Your task to perform on an android device: turn off picture-in-picture Image 0: 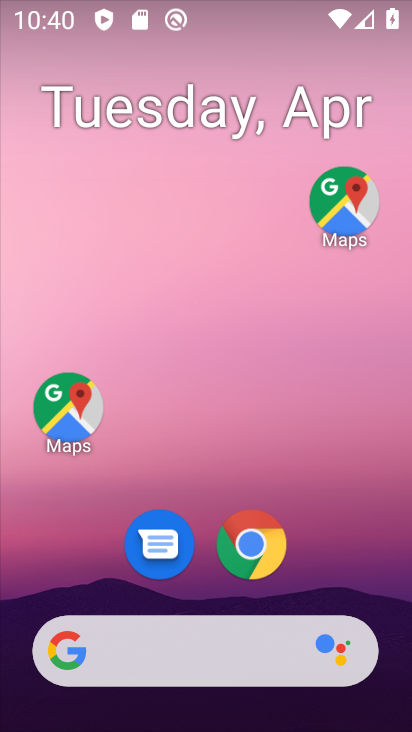
Step 0: drag from (312, 592) to (287, 0)
Your task to perform on an android device: turn off picture-in-picture Image 1: 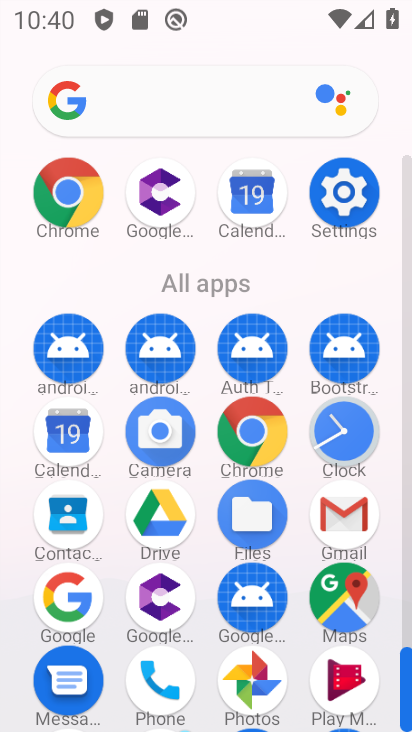
Step 1: click (343, 219)
Your task to perform on an android device: turn off picture-in-picture Image 2: 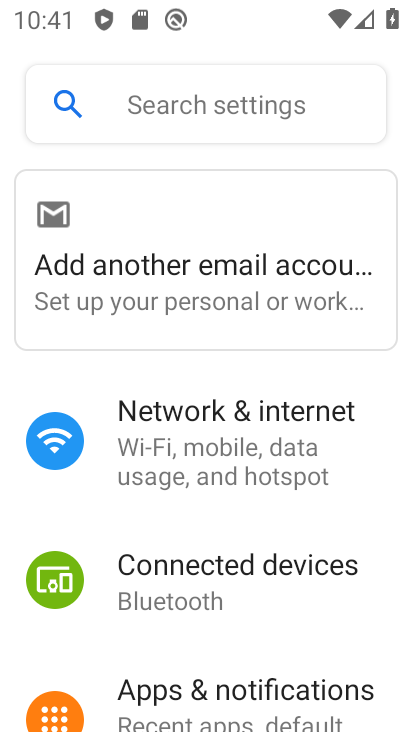
Step 2: drag from (271, 625) to (314, 261)
Your task to perform on an android device: turn off picture-in-picture Image 3: 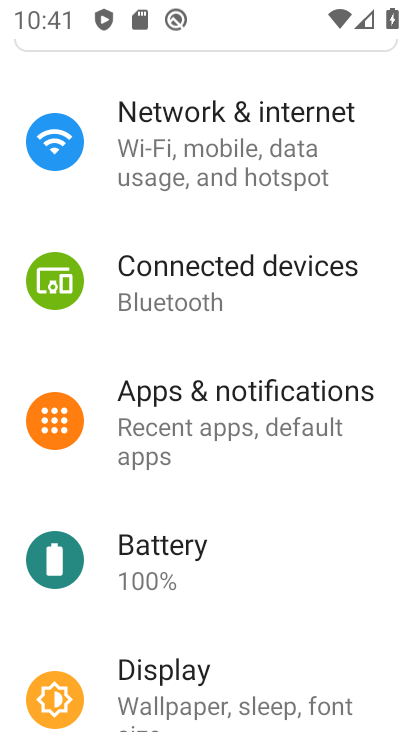
Step 3: drag from (279, 651) to (315, 319)
Your task to perform on an android device: turn off picture-in-picture Image 4: 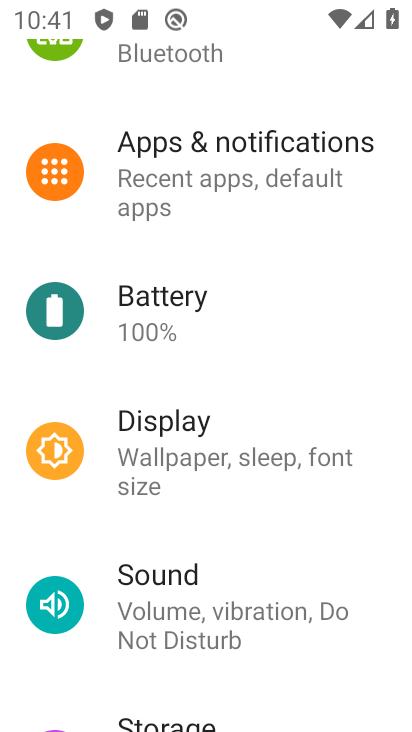
Step 4: drag from (290, 686) to (264, 730)
Your task to perform on an android device: turn off picture-in-picture Image 5: 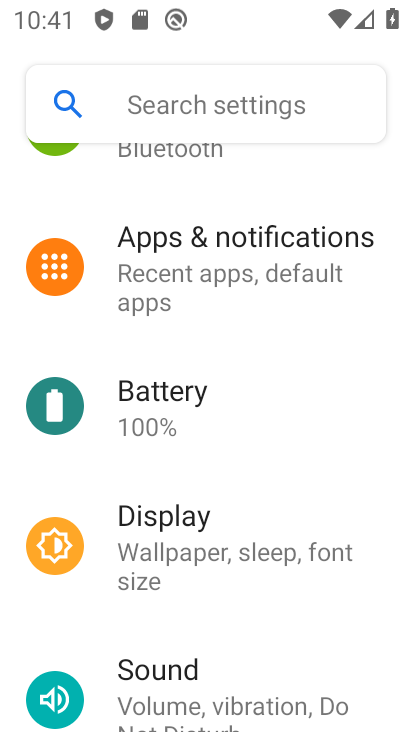
Step 5: drag from (244, 343) to (225, 696)
Your task to perform on an android device: turn off picture-in-picture Image 6: 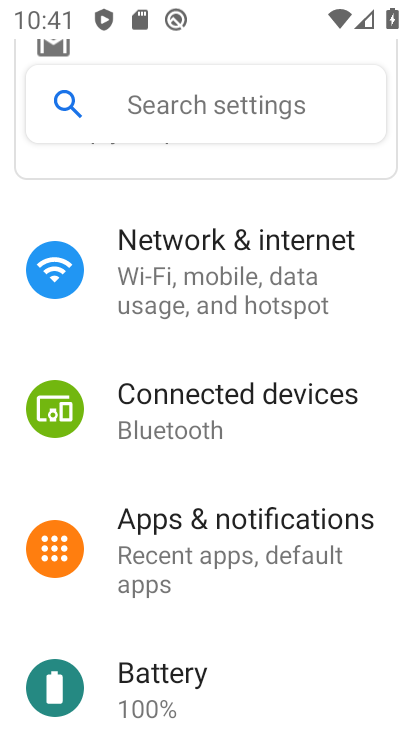
Step 6: drag from (227, 348) to (248, 447)
Your task to perform on an android device: turn off picture-in-picture Image 7: 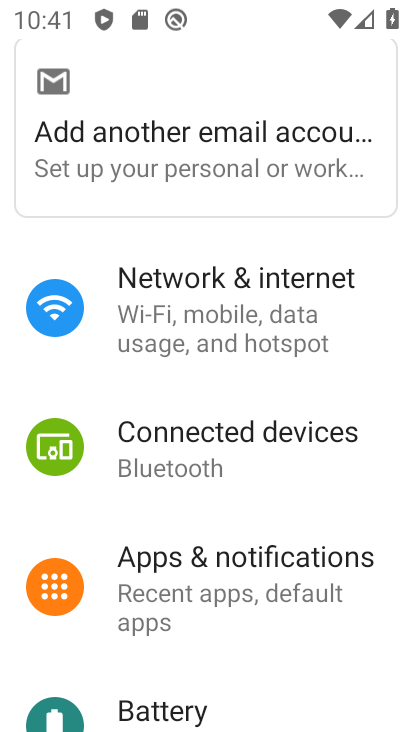
Step 7: click (181, 587)
Your task to perform on an android device: turn off picture-in-picture Image 8: 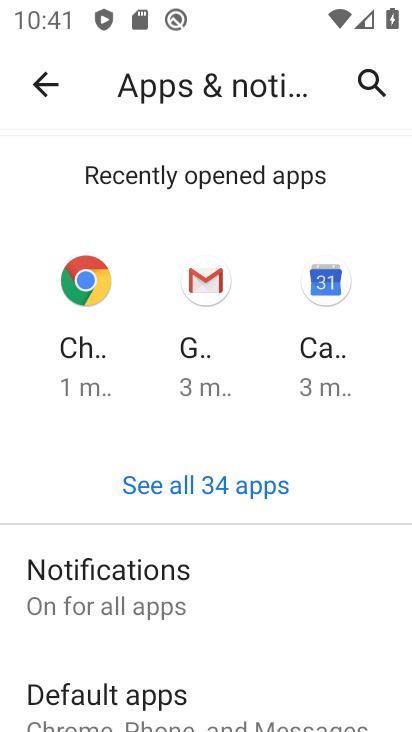
Step 8: drag from (216, 672) to (258, 361)
Your task to perform on an android device: turn off picture-in-picture Image 9: 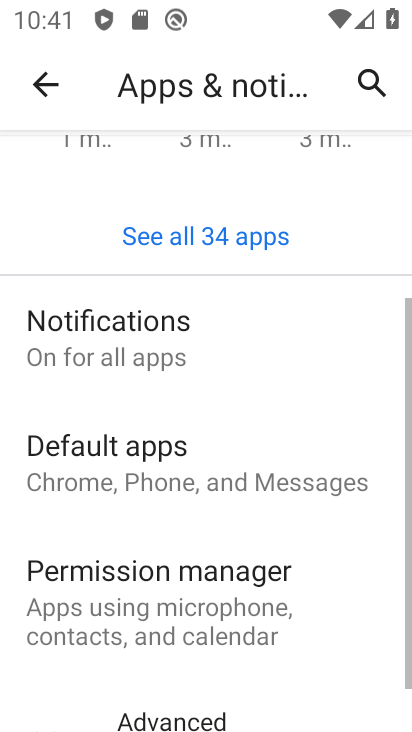
Step 9: drag from (179, 707) to (250, 357)
Your task to perform on an android device: turn off picture-in-picture Image 10: 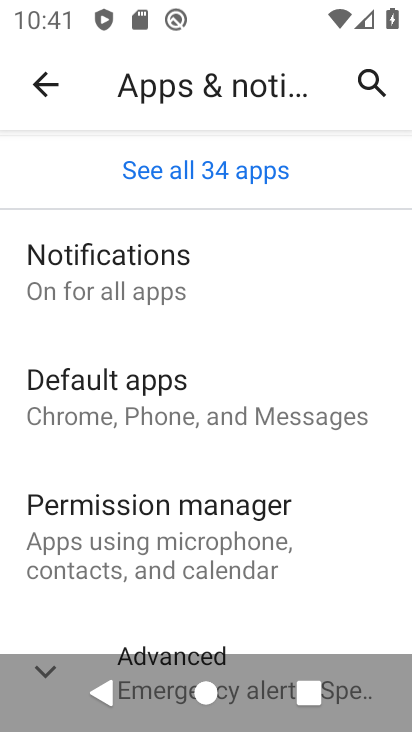
Step 10: drag from (173, 601) to (201, 466)
Your task to perform on an android device: turn off picture-in-picture Image 11: 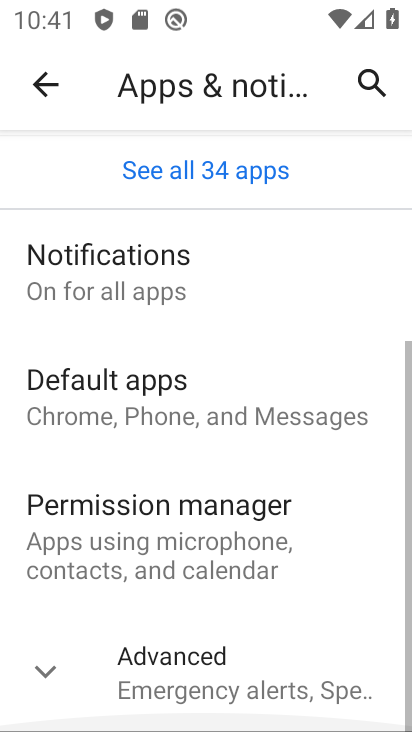
Step 11: click (125, 607)
Your task to perform on an android device: turn off picture-in-picture Image 12: 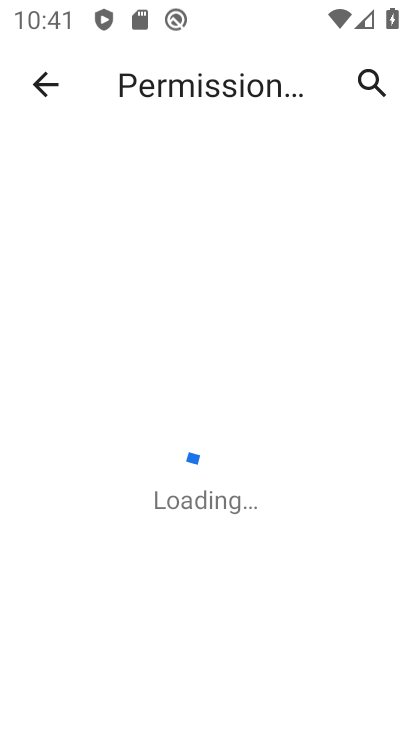
Step 12: click (44, 680)
Your task to perform on an android device: turn off picture-in-picture Image 13: 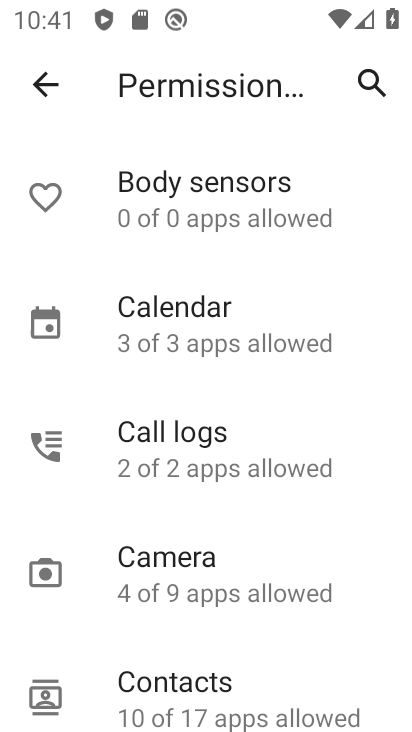
Step 13: press home button
Your task to perform on an android device: turn off picture-in-picture Image 14: 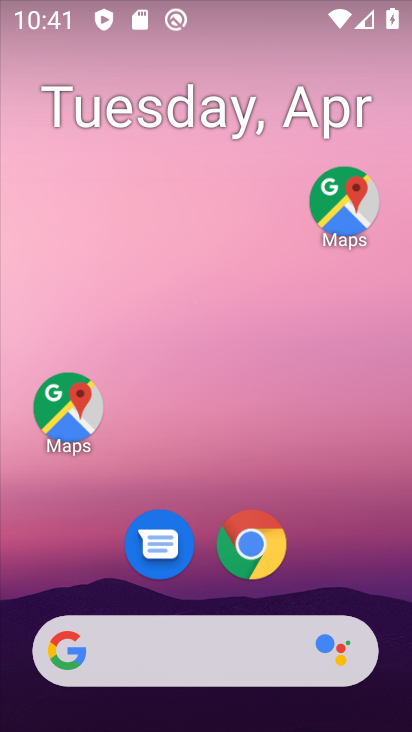
Step 14: drag from (318, 566) to (336, 119)
Your task to perform on an android device: turn off picture-in-picture Image 15: 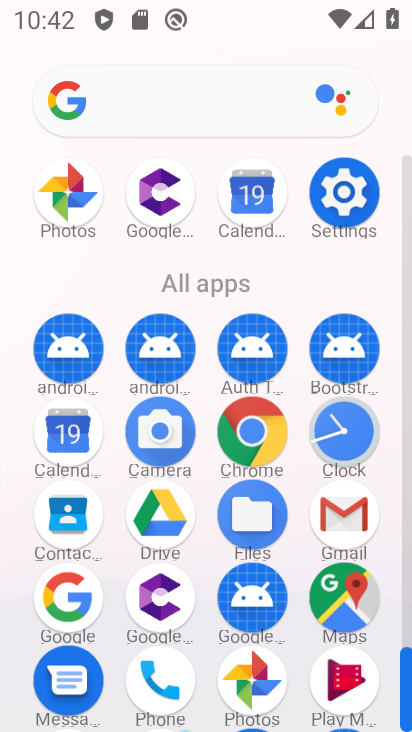
Step 15: click (351, 209)
Your task to perform on an android device: turn off picture-in-picture Image 16: 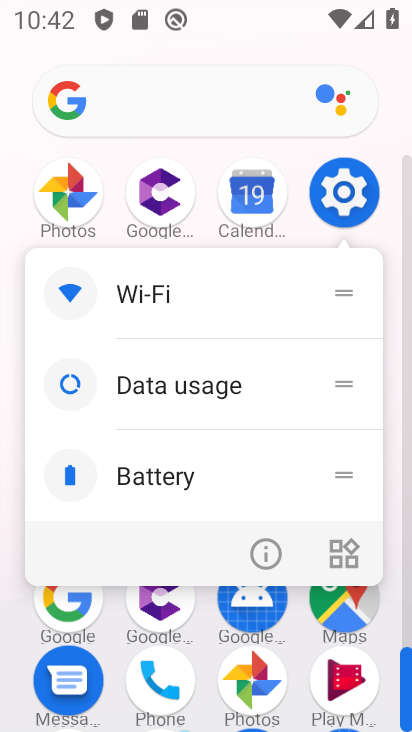
Step 16: click (324, 216)
Your task to perform on an android device: turn off picture-in-picture Image 17: 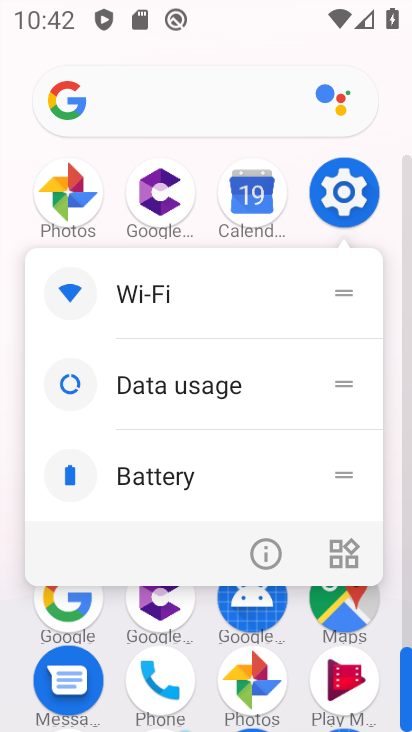
Step 17: click (359, 187)
Your task to perform on an android device: turn off picture-in-picture Image 18: 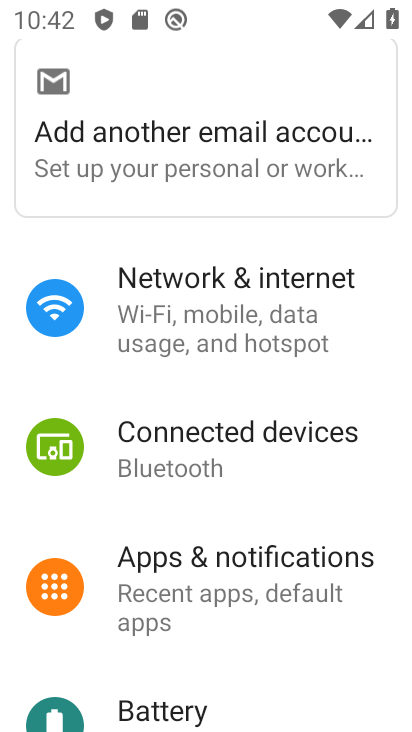
Step 18: click (281, 586)
Your task to perform on an android device: turn off picture-in-picture Image 19: 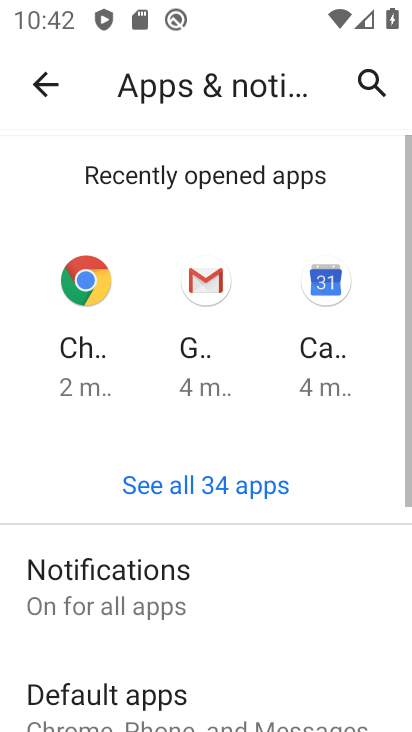
Step 19: drag from (272, 652) to (337, 278)
Your task to perform on an android device: turn off picture-in-picture Image 20: 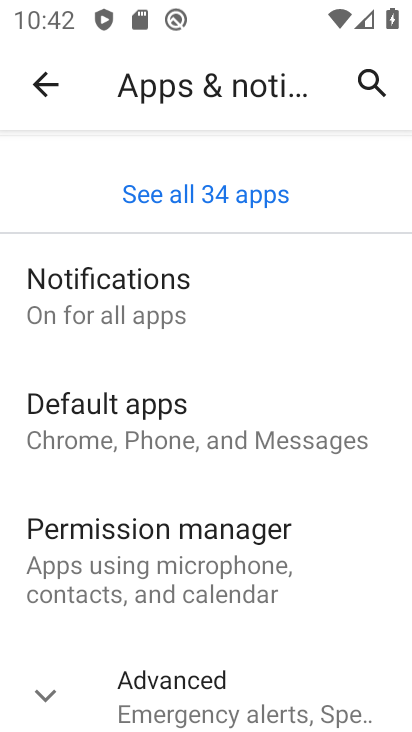
Step 20: click (54, 693)
Your task to perform on an android device: turn off picture-in-picture Image 21: 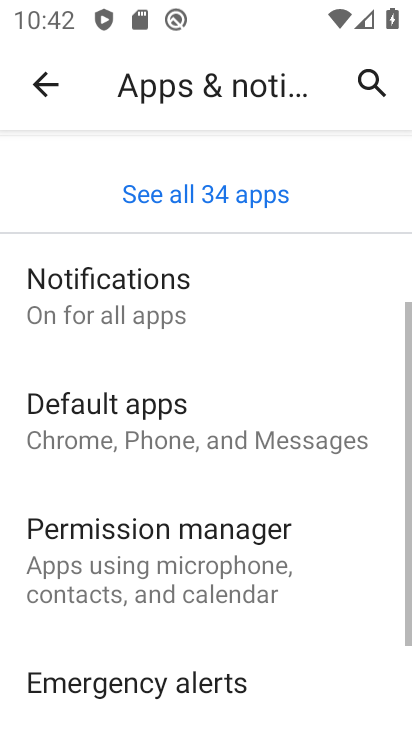
Step 21: drag from (285, 641) to (304, 221)
Your task to perform on an android device: turn off picture-in-picture Image 22: 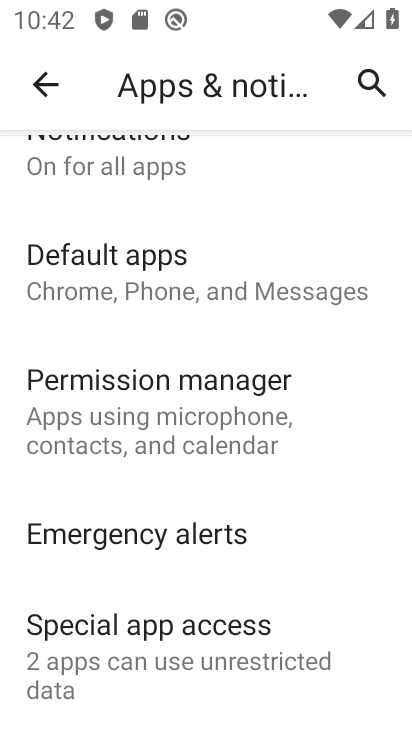
Step 22: click (152, 668)
Your task to perform on an android device: turn off picture-in-picture Image 23: 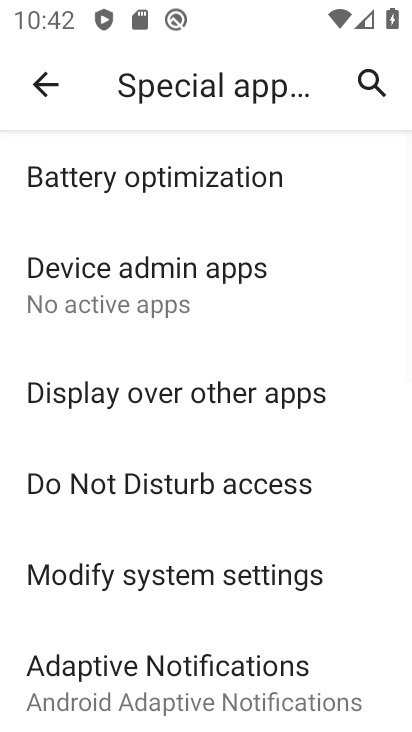
Step 23: drag from (336, 647) to (354, 267)
Your task to perform on an android device: turn off picture-in-picture Image 24: 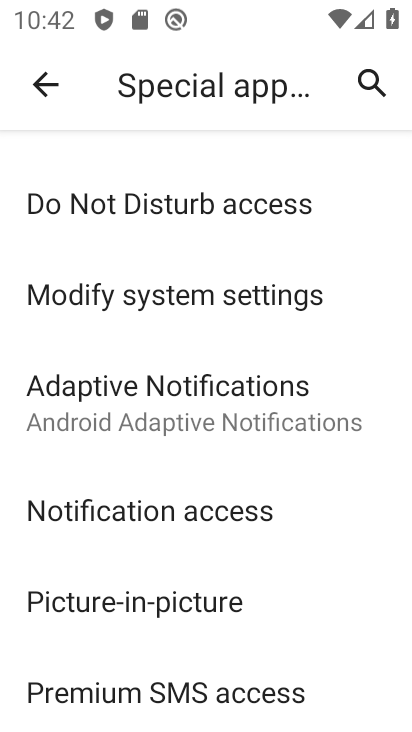
Step 24: click (194, 617)
Your task to perform on an android device: turn off picture-in-picture Image 25: 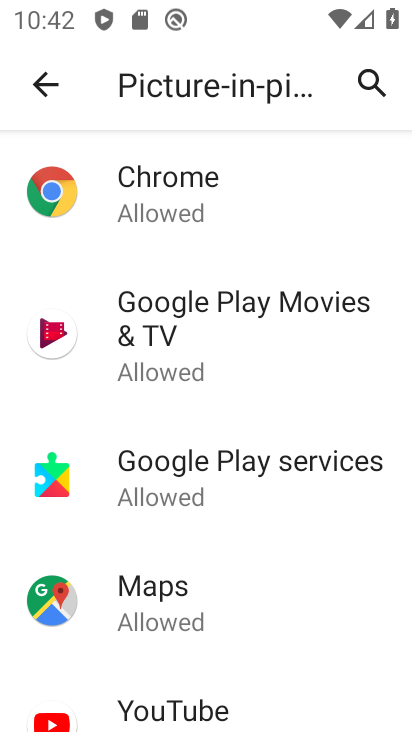
Step 25: drag from (260, 665) to (316, 213)
Your task to perform on an android device: turn off picture-in-picture Image 26: 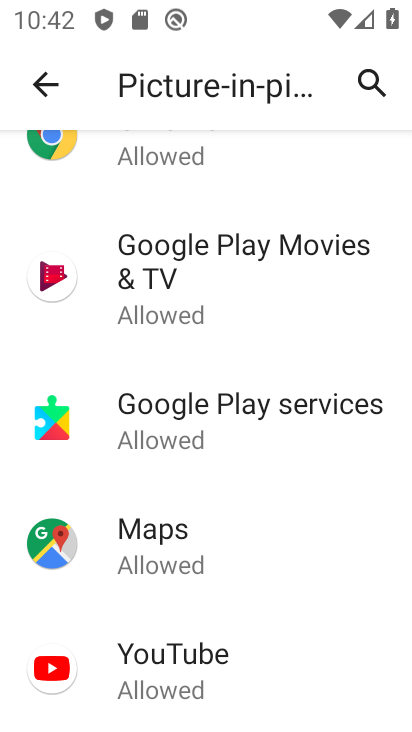
Step 26: click (200, 141)
Your task to perform on an android device: turn off picture-in-picture Image 27: 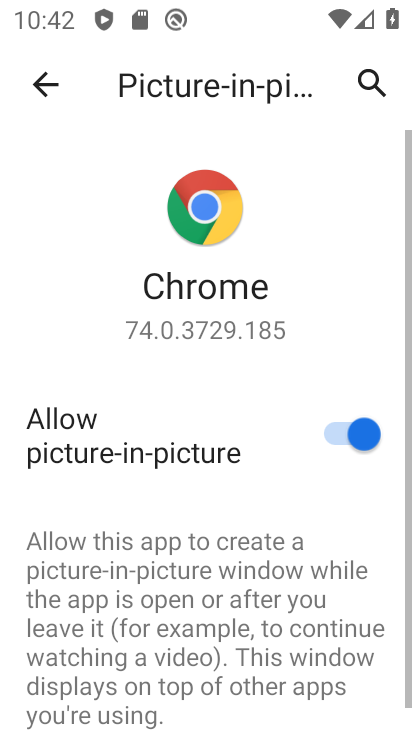
Step 27: click (361, 426)
Your task to perform on an android device: turn off picture-in-picture Image 28: 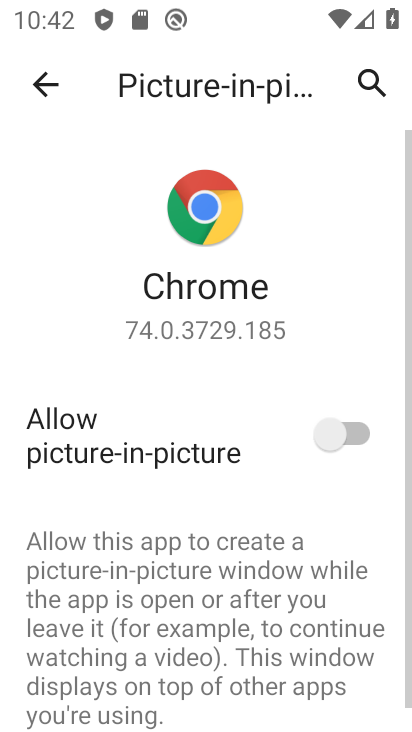
Step 28: task complete